Your task to perform on an android device: Search for dining sets on article.com Image 0: 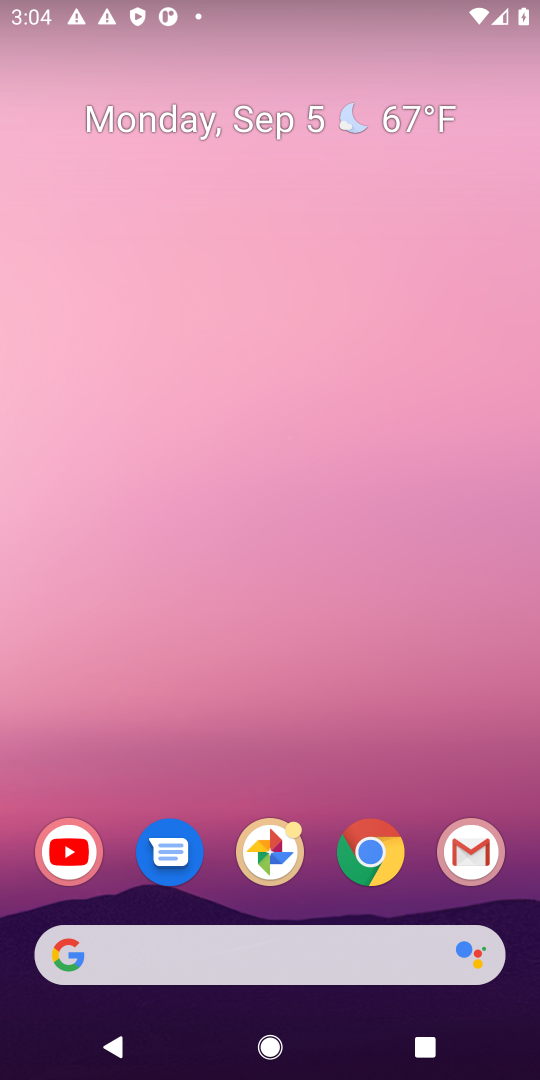
Step 0: click (368, 851)
Your task to perform on an android device: Search for dining sets on article.com Image 1: 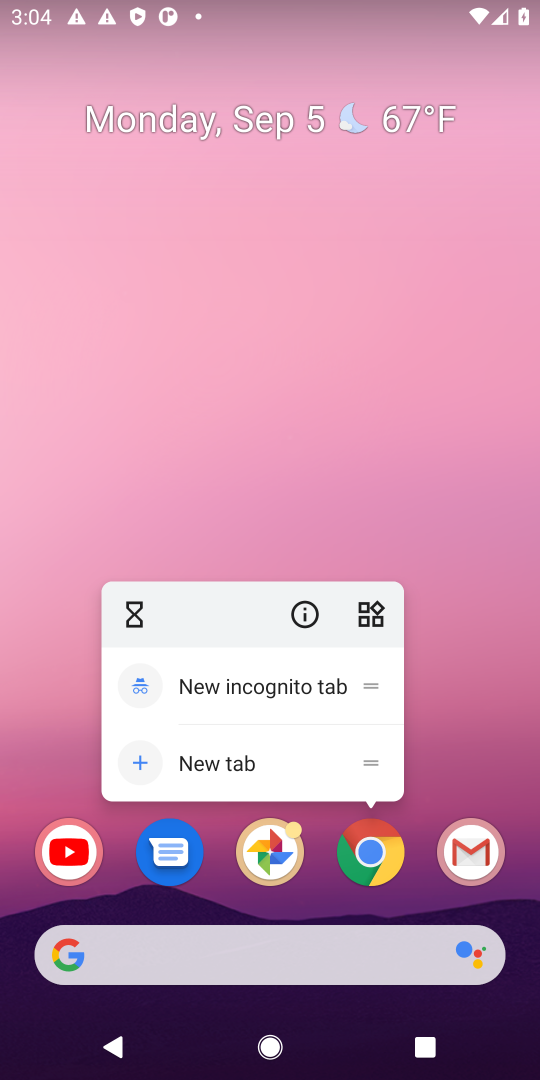
Step 1: click (383, 861)
Your task to perform on an android device: Search for dining sets on article.com Image 2: 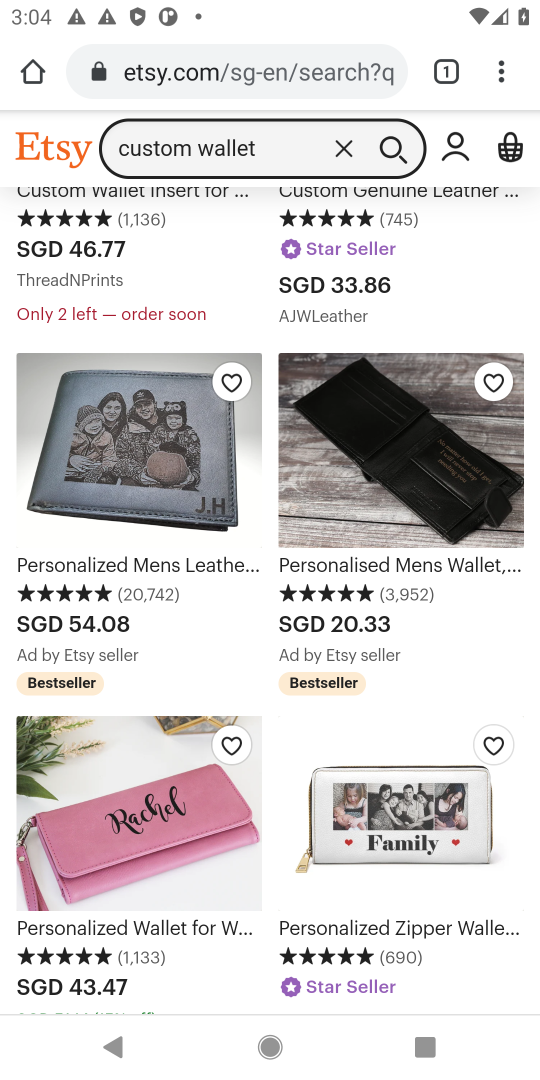
Step 2: click (235, 54)
Your task to perform on an android device: Search for dining sets on article.com Image 3: 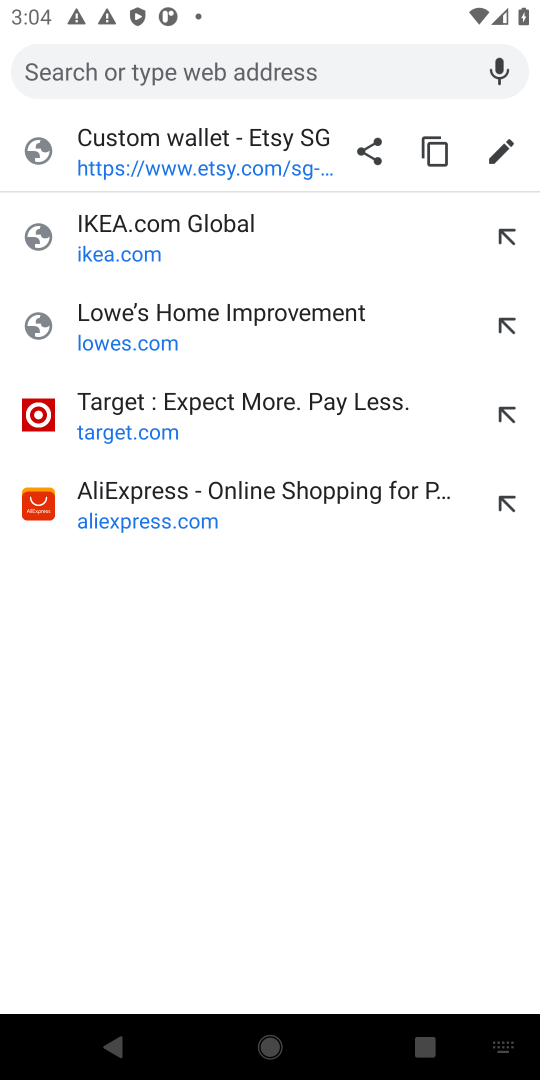
Step 3: type "article.com"
Your task to perform on an android device: Search for dining sets on article.com Image 4: 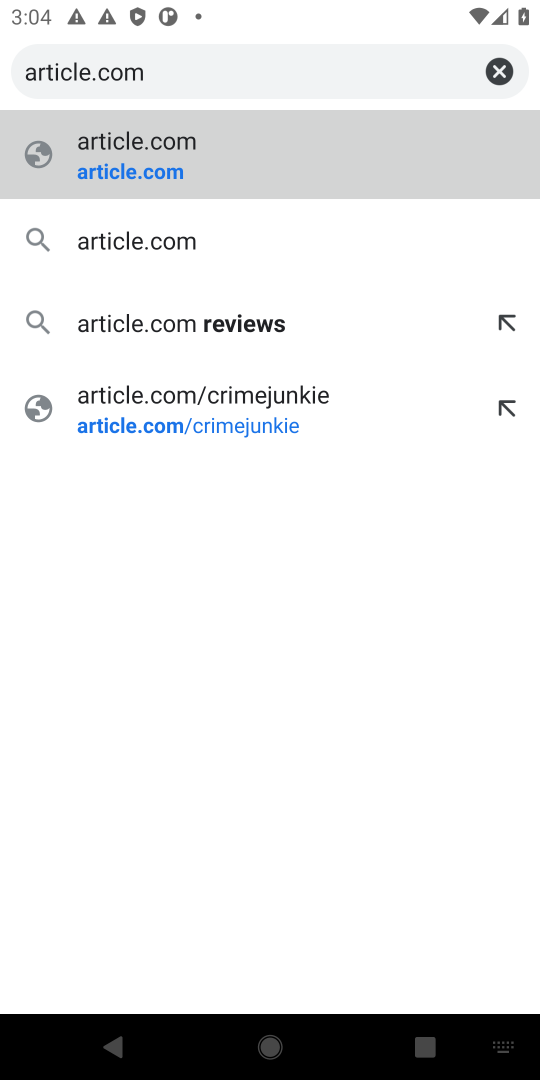
Step 4: click (100, 141)
Your task to perform on an android device: Search for dining sets on article.com Image 5: 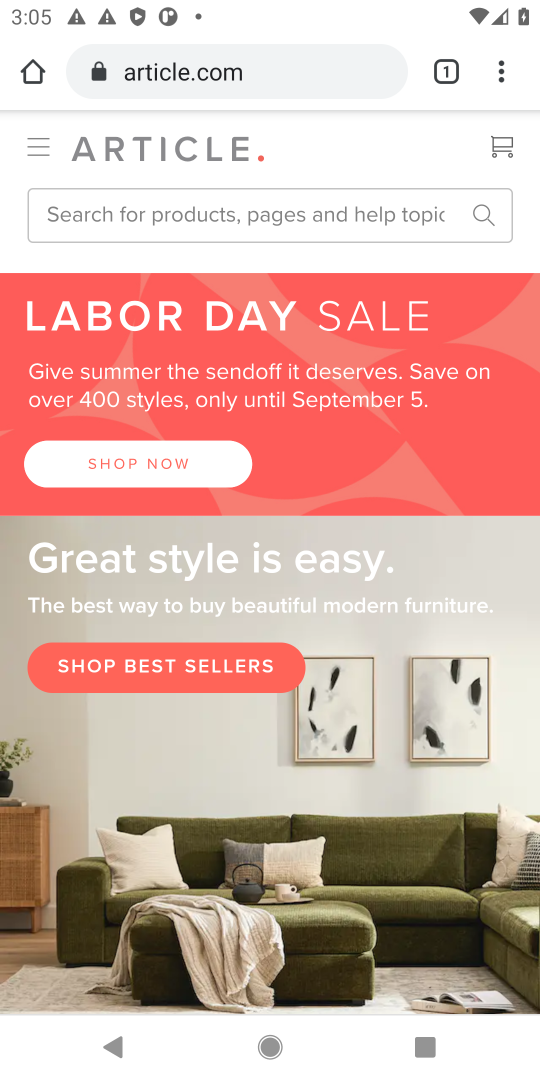
Step 5: click (154, 214)
Your task to perform on an android device: Search for dining sets on article.com Image 6: 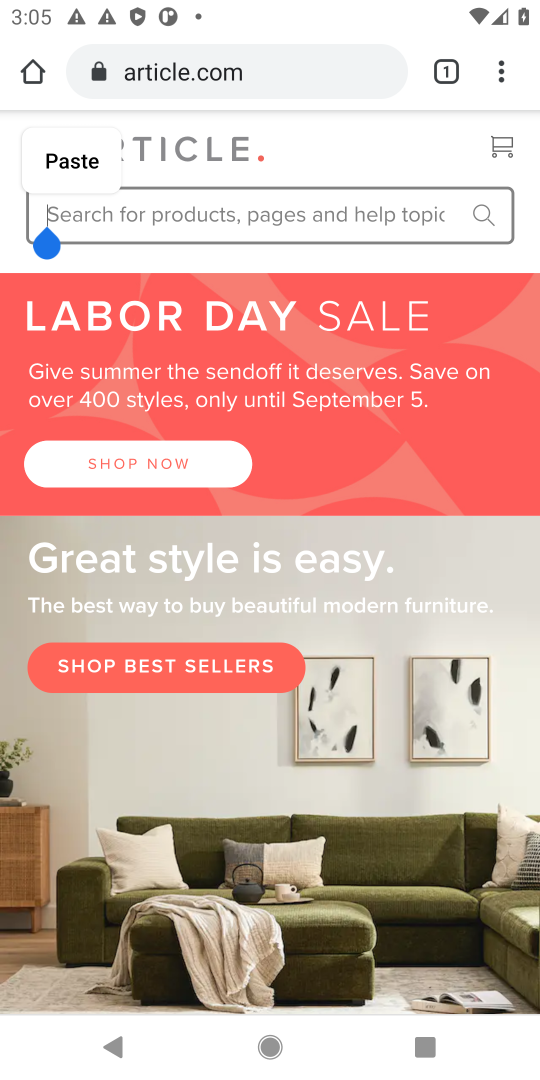
Step 6: type "dining sets"
Your task to perform on an android device: Search for dining sets on article.com Image 7: 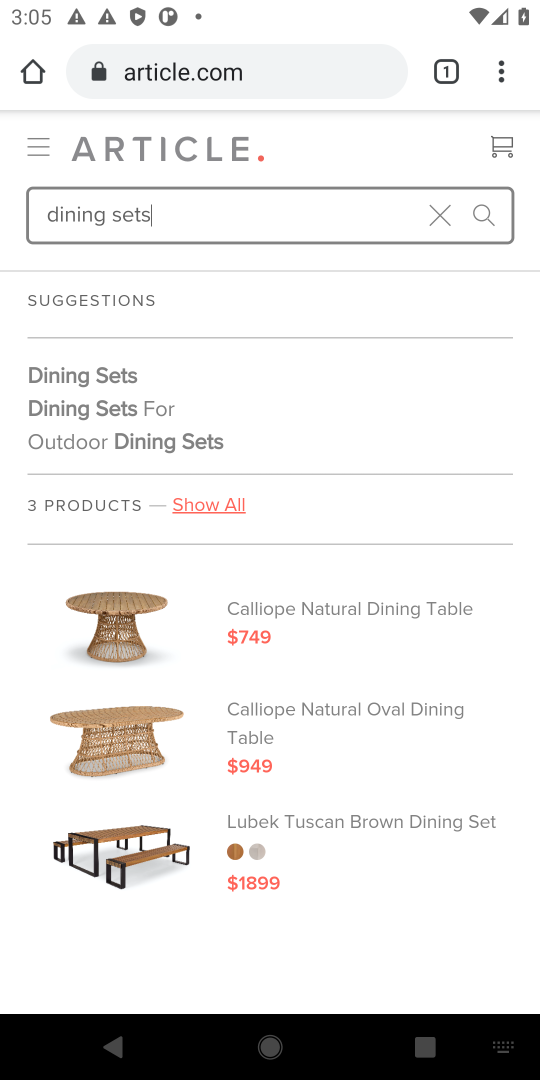
Step 7: click (483, 210)
Your task to perform on an android device: Search for dining sets on article.com Image 8: 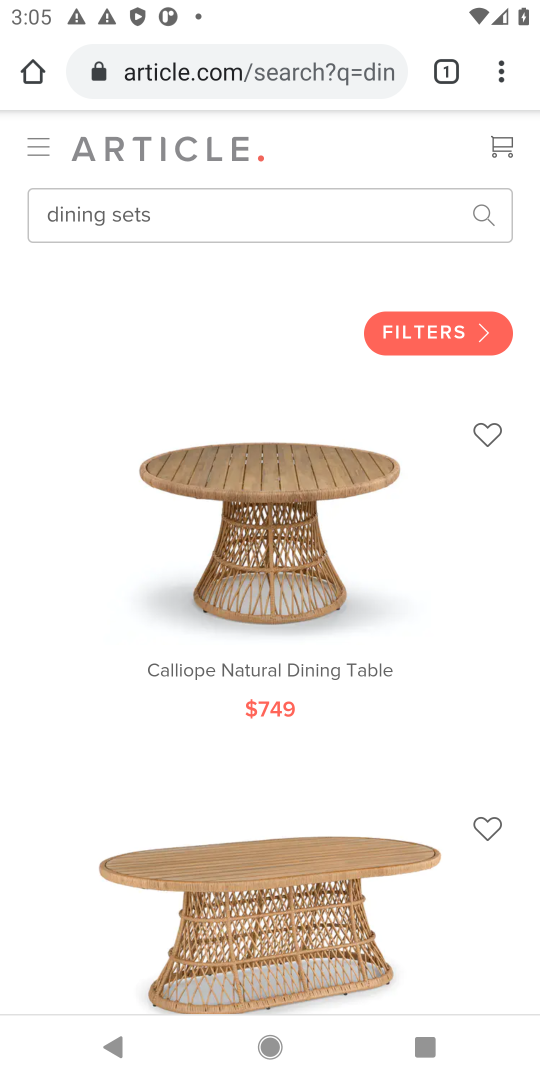
Step 8: drag from (294, 832) to (310, 241)
Your task to perform on an android device: Search for dining sets on article.com Image 9: 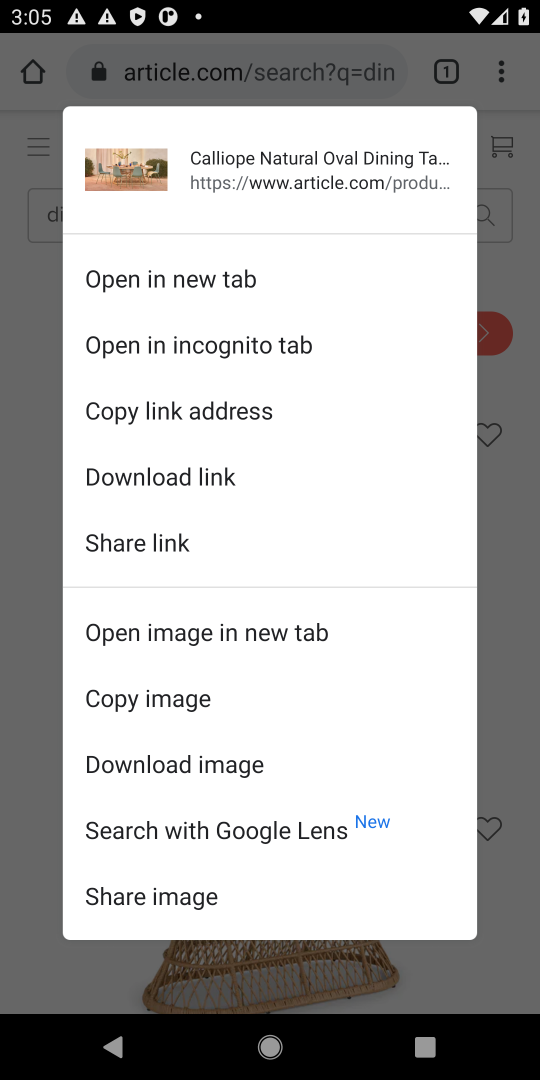
Step 9: click (526, 885)
Your task to perform on an android device: Search for dining sets on article.com Image 10: 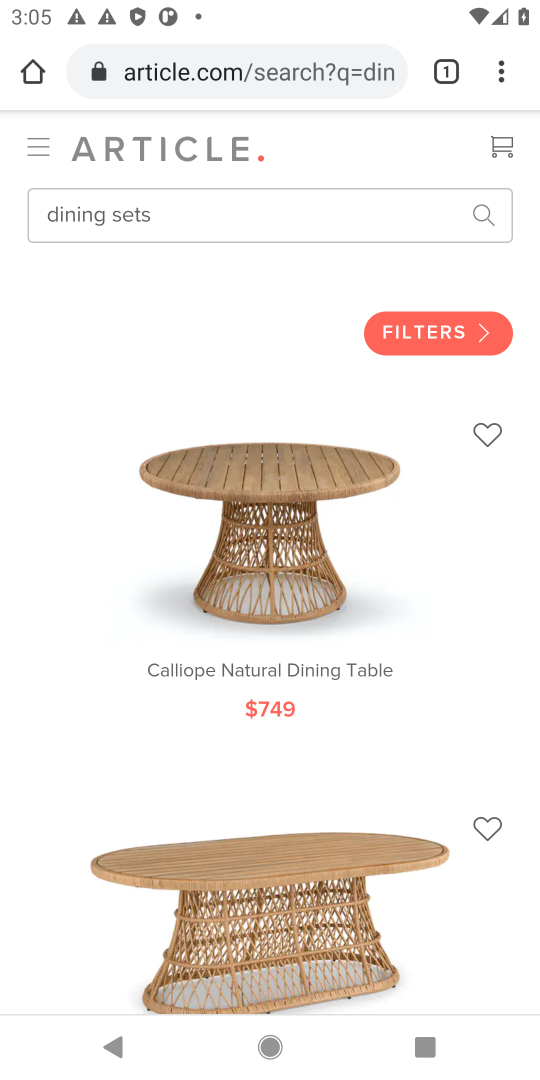
Step 10: task complete